Your task to perform on an android device: Check the weather Image 0: 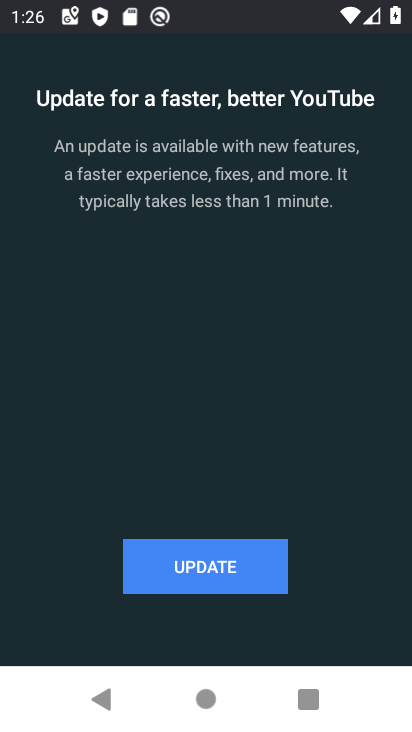
Step 0: press home button
Your task to perform on an android device: Check the weather Image 1: 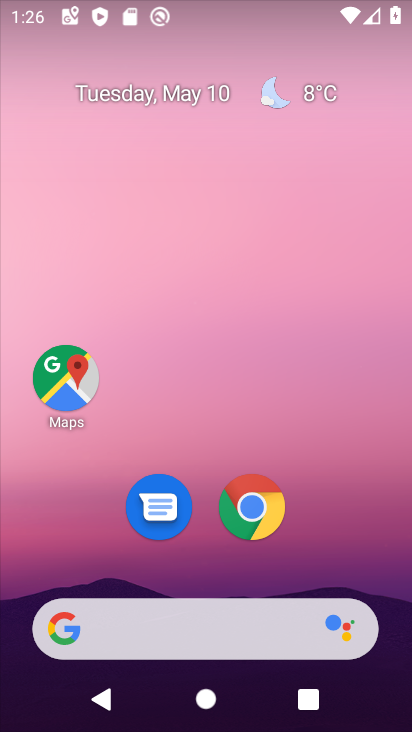
Step 1: click (226, 615)
Your task to perform on an android device: Check the weather Image 2: 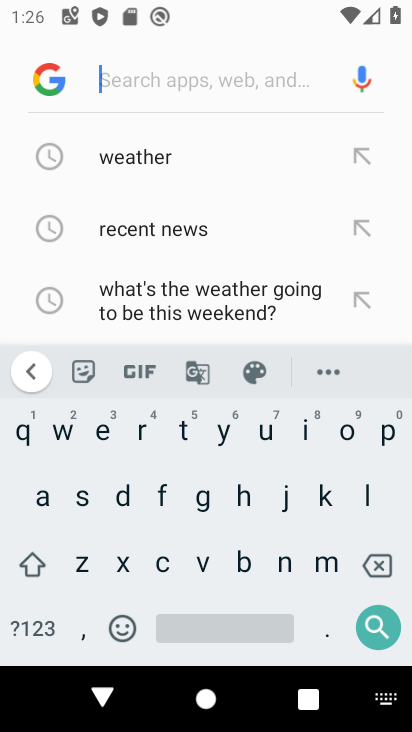
Step 2: click (169, 161)
Your task to perform on an android device: Check the weather Image 3: 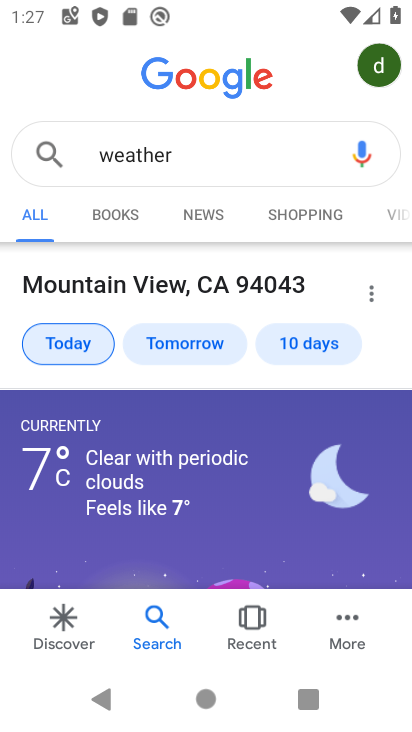
Step 3: task complete